Your task to perform on an android device: turn on data saver in the chrome app Image 0: 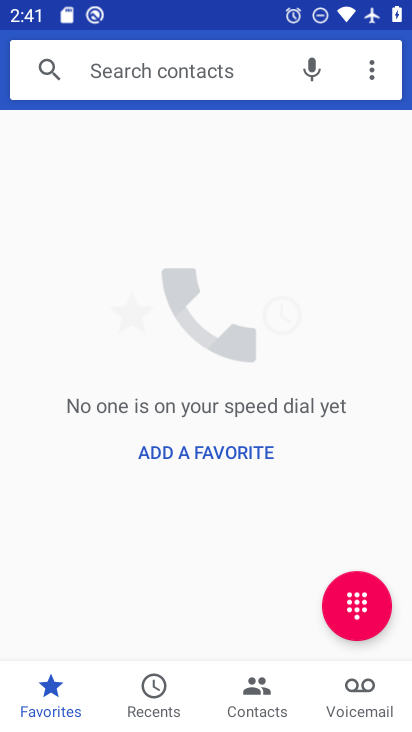
Step 0: press home button
Your task to perform on an android device: turn on data saver in the chrome app Image 1: 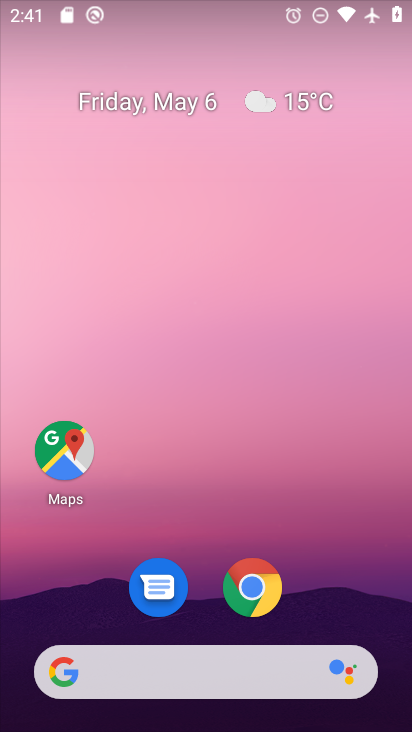
Step 1: click (263, 586)
Your task to perform on an android device: turn on data saver in the chrome app Image 2: 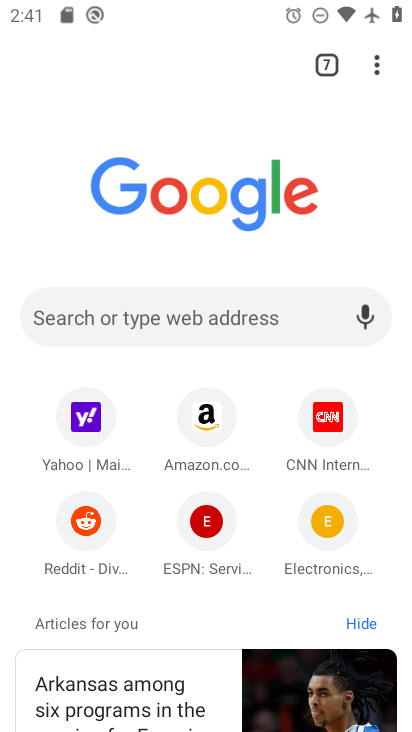
Step 2: click (375, 62)
Your task to perform on an android device: turn on data saver in the chrome app Image 3: 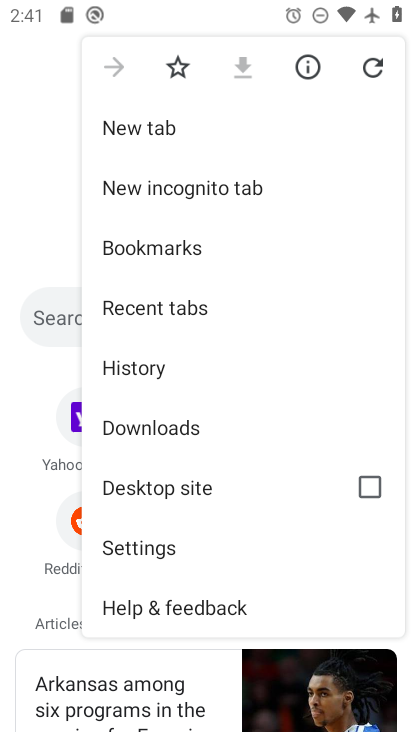
Step 3: click (166, 552)
Your task to perform on an android device: turn on data saver in the chrome app Image 4: 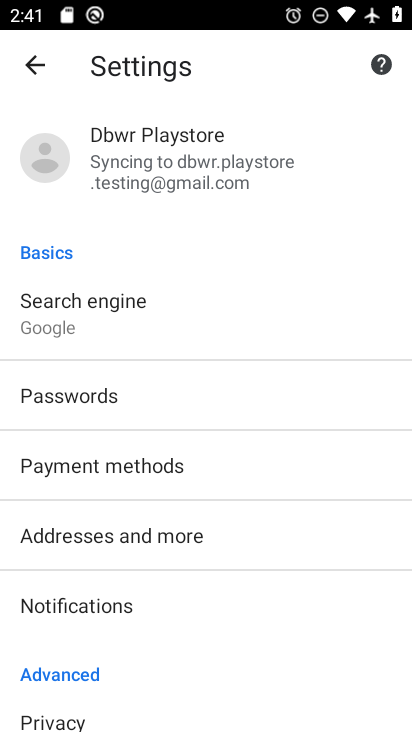
Step 4: drag from (187, 649) to (255, 184)
Your task to perform on an android device: turn on data saver in the chrome app Image 5: 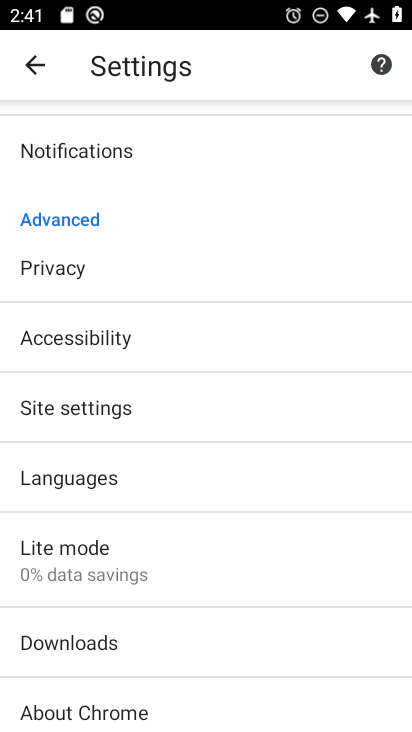
Step 5: click (126, 551)
Your task to perform on an android device: turn on data saver in the chrome app Image 6: 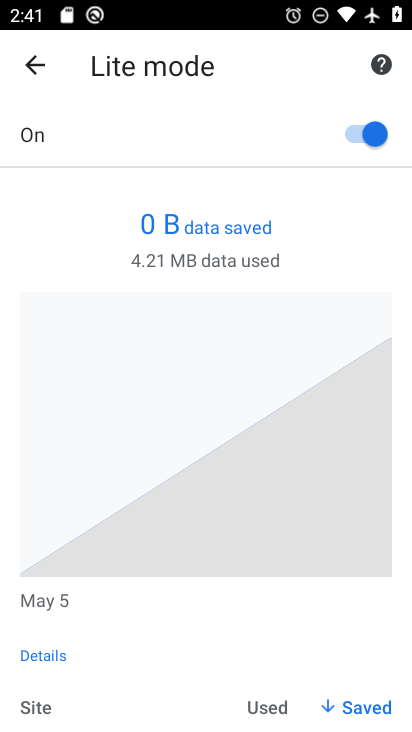
Step 6: task complete